Your task to perform on an android device: Turn off the flashlight Image 0: 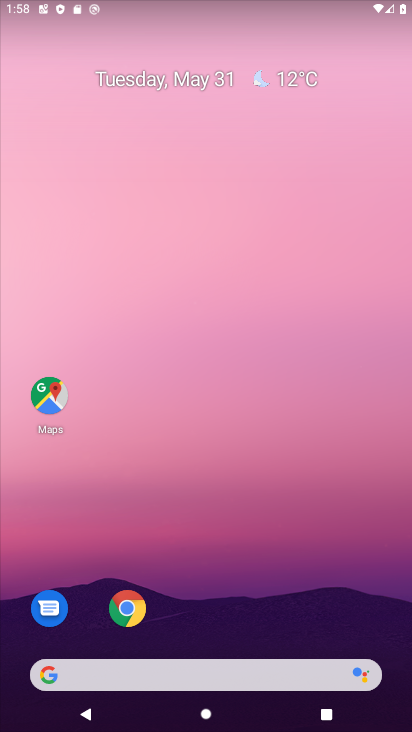
Step 0: drag from (369, 501) to (368, 194)
Your task to perform on an android device: Turn off the flashlight Image 1: 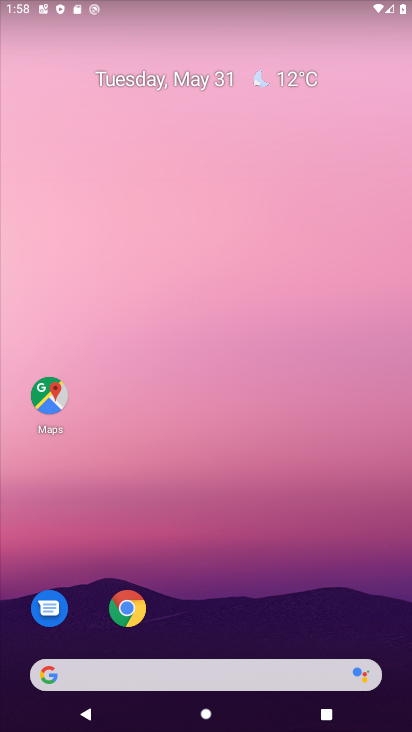
Step 1: drag from (261, 571) to (266, 199)
Your task to perform on an android device: Turn off the flashlight Image 2: 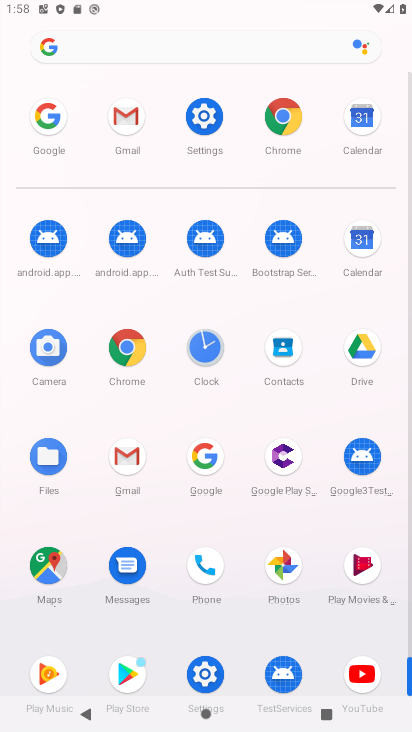
Step 2: click (284, 125)
Your task to perform on an android device: Turn off the flashlight Image 3: 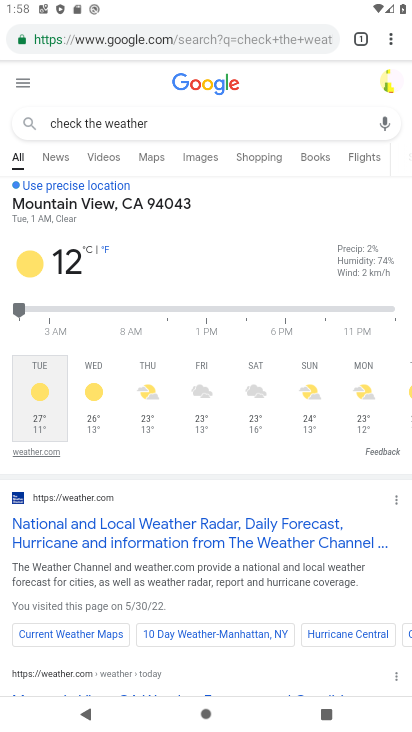
Step 3: press home button
Your task to perform on an android device: Turn off the flashlight Image 4: 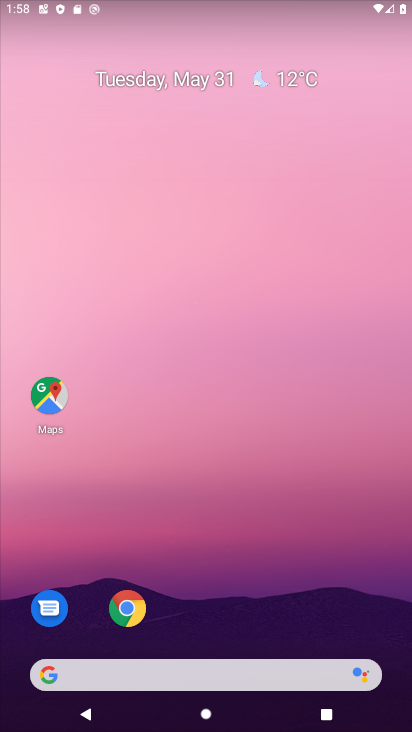
Step 4: drag from (332, 549) to (329, 213)
Your task to perform on an android device: Turn off the flashlight Image 5: 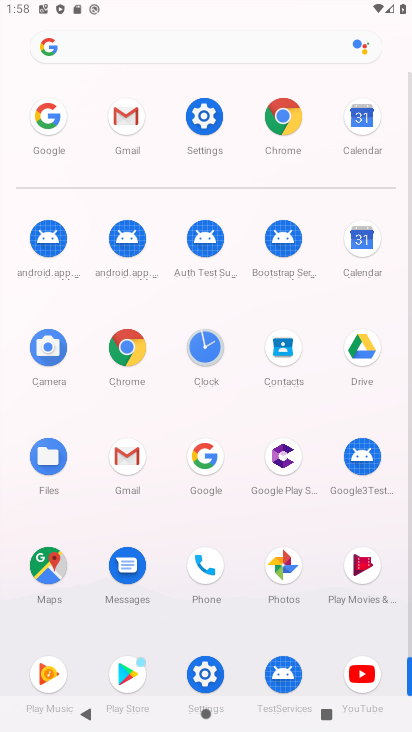
Step 5: click (198, 683)
Your task to perform on an android device: Turn off the flashlight Image 6: 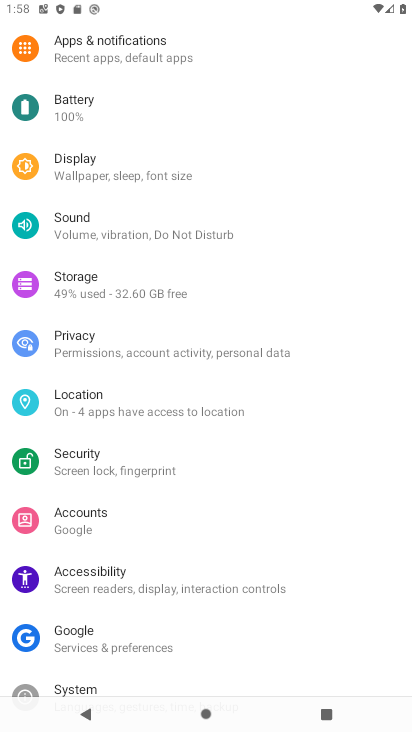
Step 6: drag from (161, 174) to (176, 410)
Your task to perform on an android device: Turn off the flashlight Image 7: 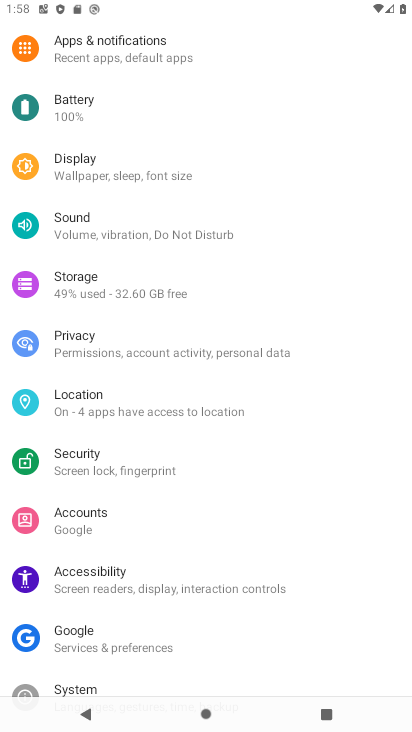
Step 7: drag from (222, 116) to (219, 451)
Your task to perform on an android device: Turn off the flashlight Image 8: 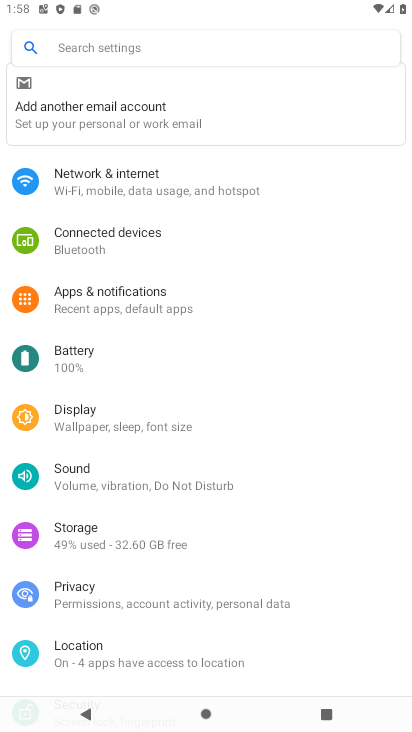
Step 8: click (260, 51)
Your task to perform on an android device: Turn off the flashlight Image 9: 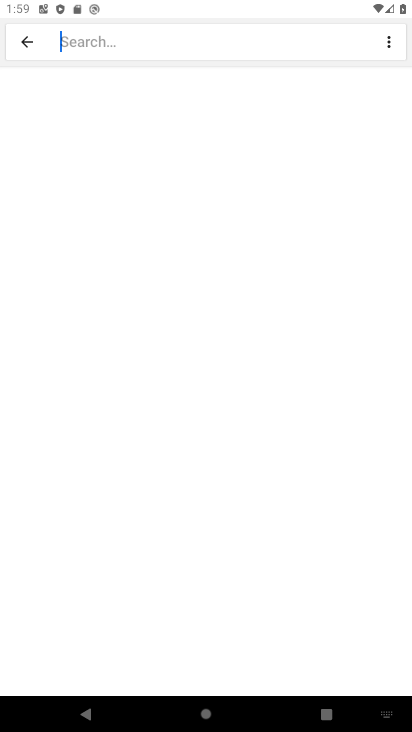
Step 9: type "flashlight"
Your task to perform on an android device: Turn off the flashlight Image 10: 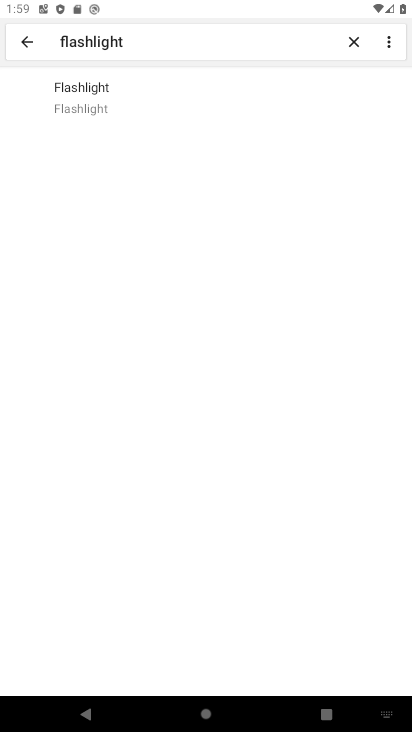
Step 10: click (85, 104)
Your task to perform on an android device: Turn off the flashlight Image 11: 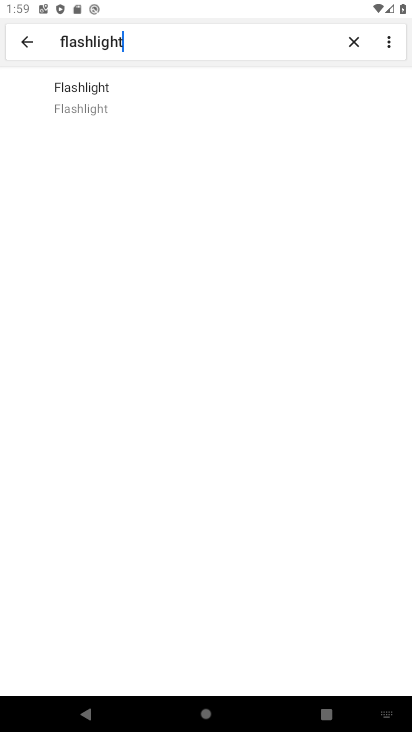
Step 11: click (107, 107)
Your task to perform on an android device: Turn off the flashlight Image 12: 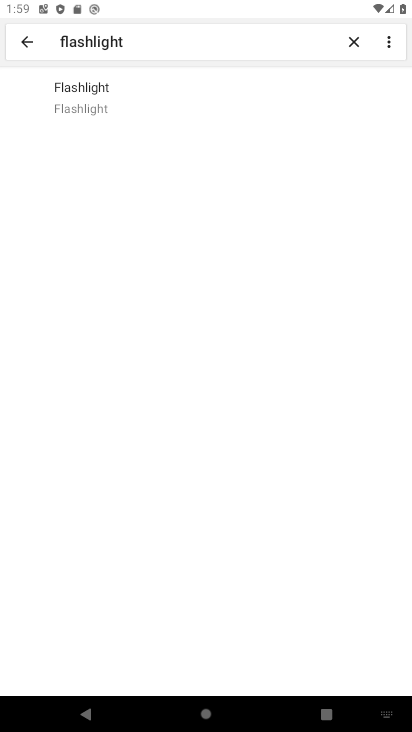
Step 12: task complete